Your task to perform on an android device: turn off notifications settings in the gmail app Image 0: 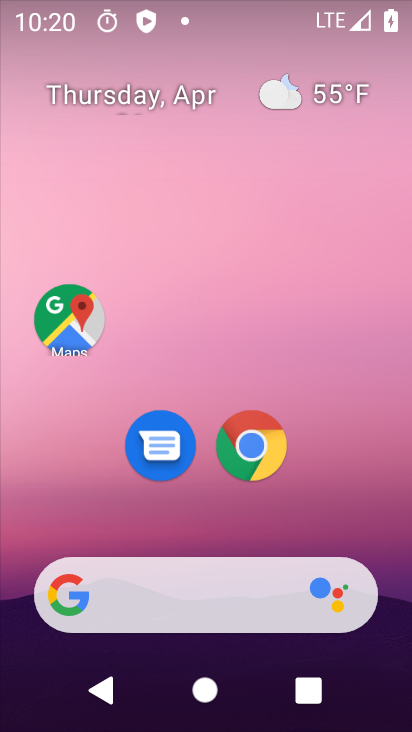
Step 0: drag from (373, 505) to (403, 12)
Your task to perform on an android device: turn off notifications settings in the gmail app Image 1: 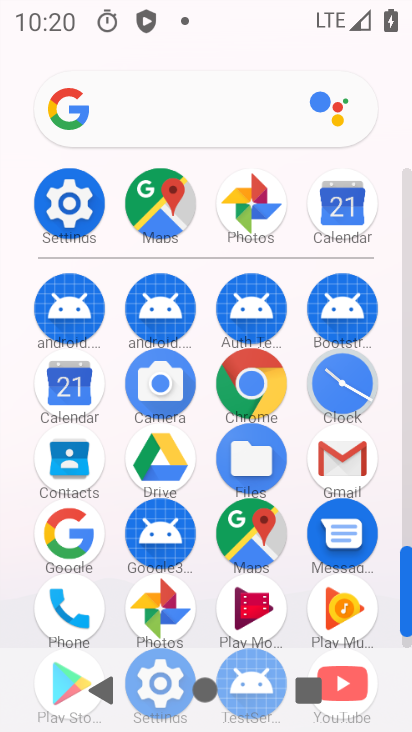
Step 1: click (346, 456)
Your task to perform on an android device: turn off notifications settings in the gmail app Image 2: 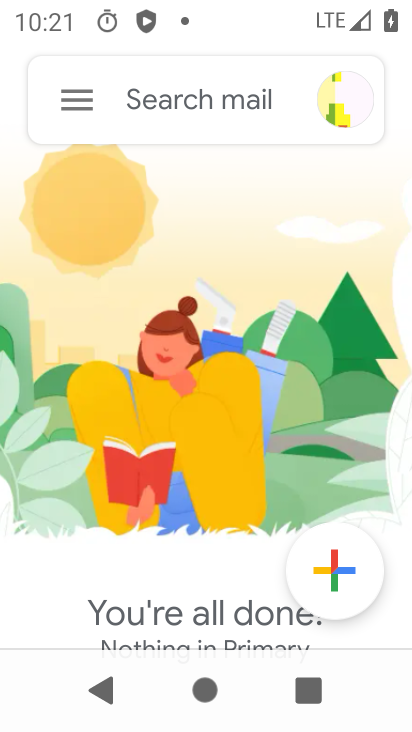
Step 2: click (71, 104)
Your task to perform on an android device: turn off notifications settings in the gmail app Image 3: 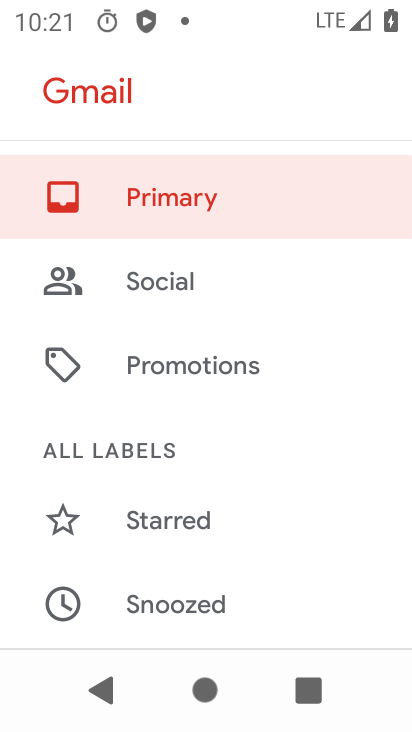
Step 3: drag from (266, 339) to (261, 134)
Your task to perform on an android device: turn off notifications settings in the gmail app Image 4: 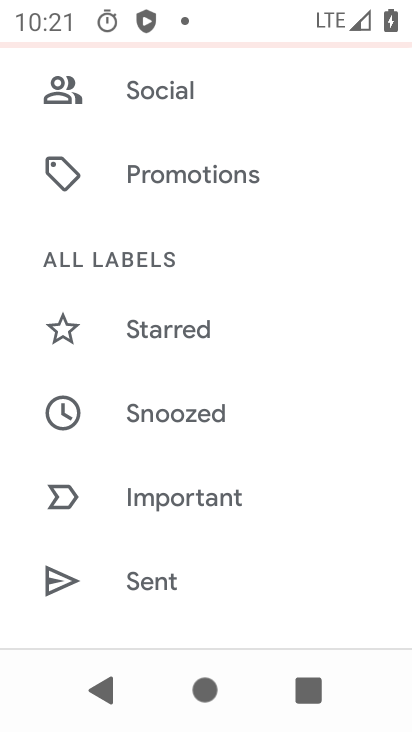
Step 4: drag from (206, 500) to (197, 162)
Your task to perform on an android device: turn off notifications settings in the gmail app Image 5: 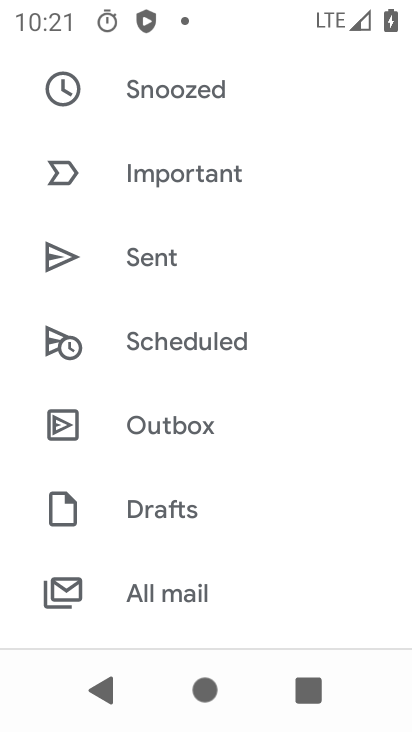
Step 5: drag from (254, 539) to (248, 96)
Your task to perform on an android device: turn off notifications settings in the gmail app Image 6: 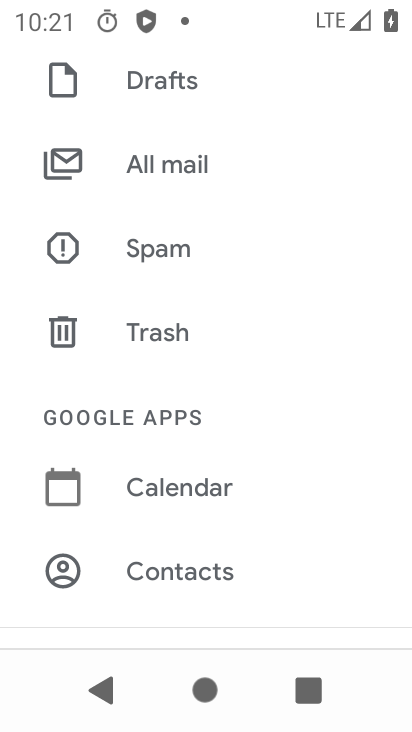
Step 6: drag from (258, 576) to (267, 101)
Your task to perform on an android device: turn off notifications settings in the gmail app Image 7: 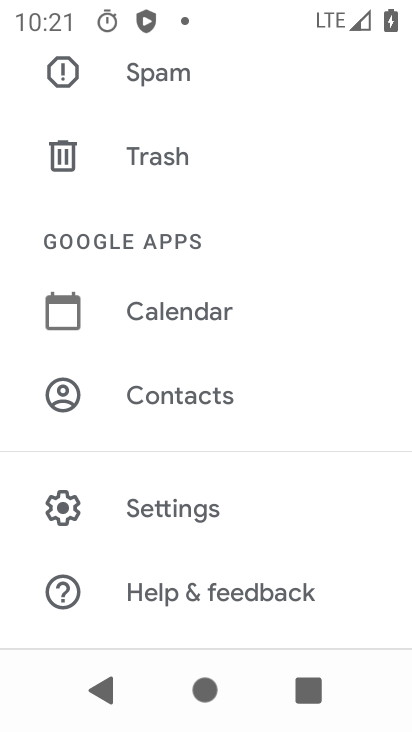
Step 7: click (153, 516)
Your task to perform on an android device: turn off notifications settings in the gmail app Image 8: 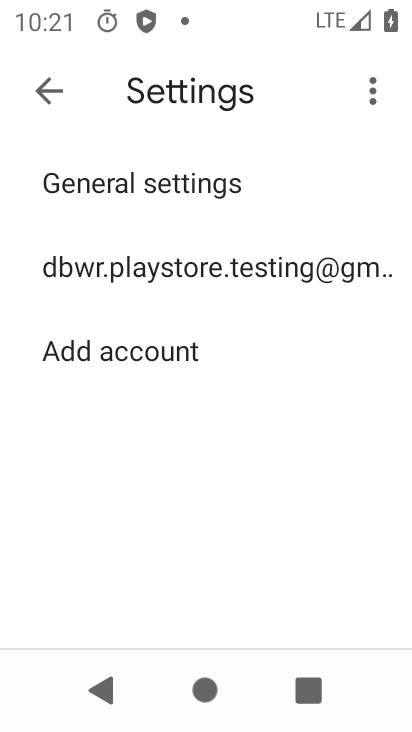
Step 8: click (120, 194)
Your task to perform on an android device: turn off notifications settings in the gmail app Image 9: 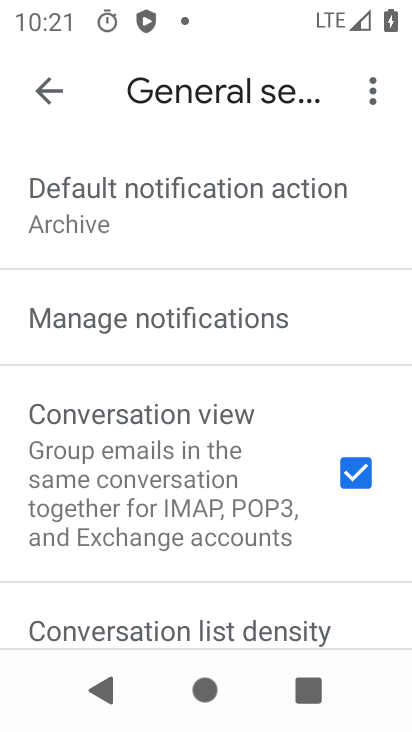
Step 9: click (126, 326)
Your task to perform on an android device: turn off notifications settings in the gmail app Image 10: 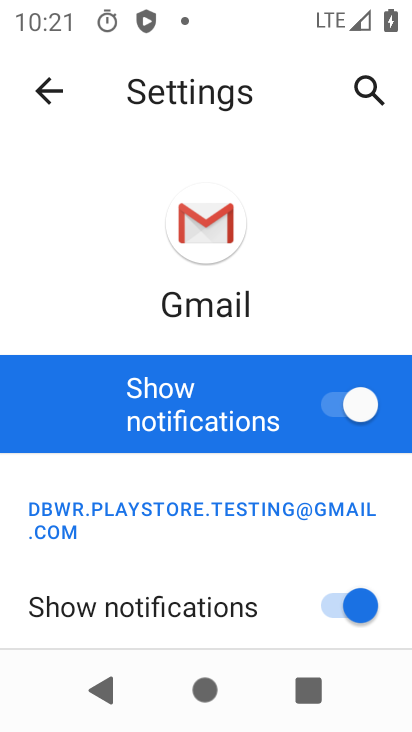
Step 10: click (356, 392)
Your task to perform on an android device: turn off notifications settings in the gmail app Image 11: 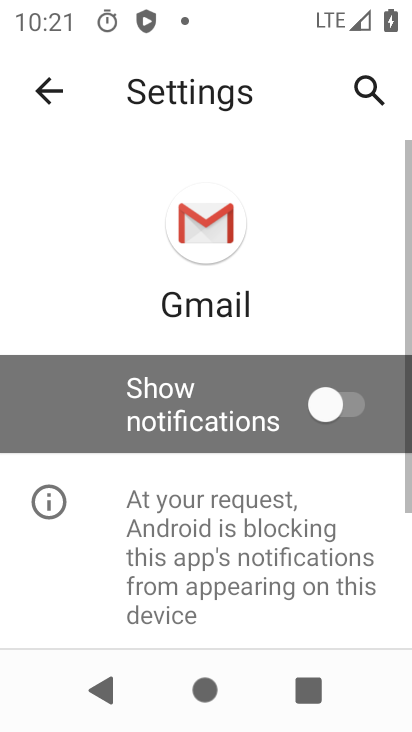
Step 11: task complete